Your task to perform on an android device: check the backup settings in the google photos Image 0: 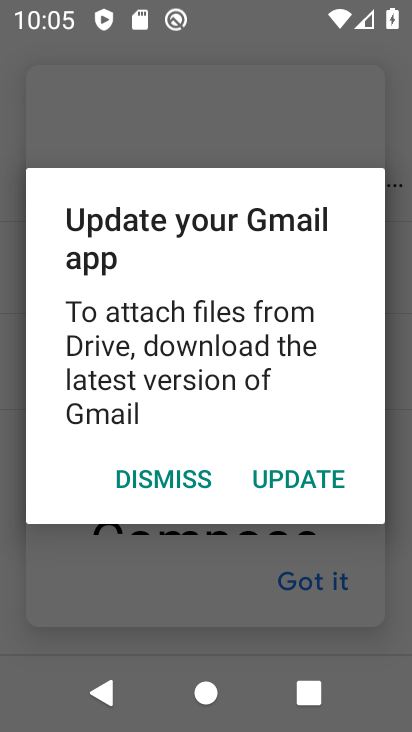
Step 0: press home button
Your task to perform on an android device: check the backup settings in the google photos Image 1: 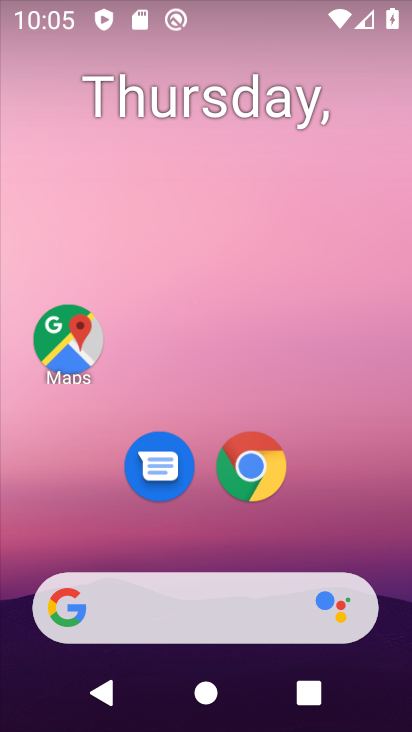
Step 1: drag from (174, 609) to (326, 91)
Your task to perform on an android device: check the backup settings in the google photos Image 2: 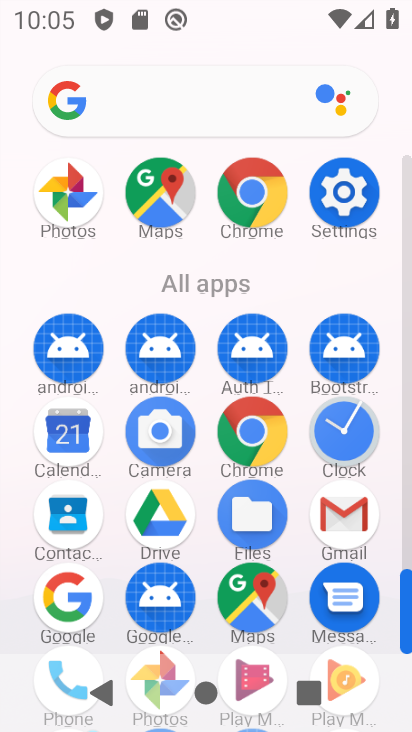
Step 2: click (66, 202)
Your task to perform on an android device: check the backup settings in the google photos Image 3: 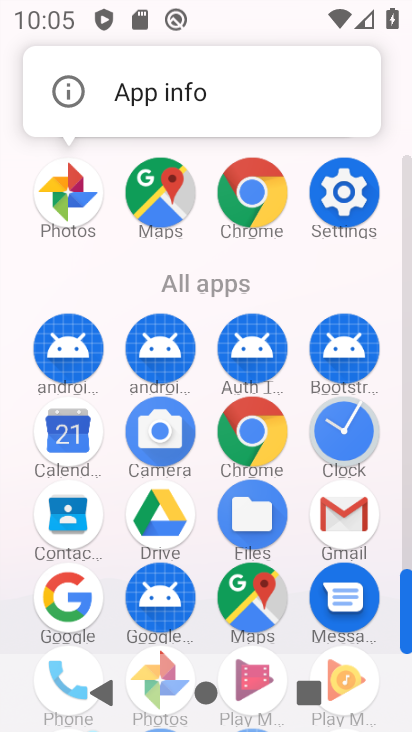
Step 3: click (70, 204)
Your task to perform on an android device: check the backup settings in the google photos Image 4: 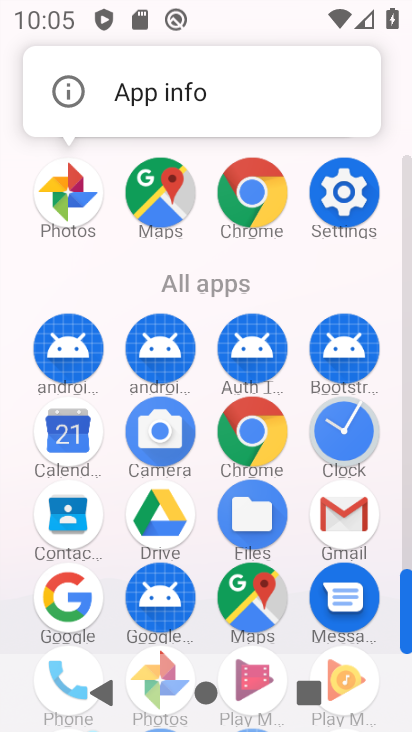
Step 4: click (70, 203)
Your task to perform on an android device: check the backup settings in the google photos Image 5: 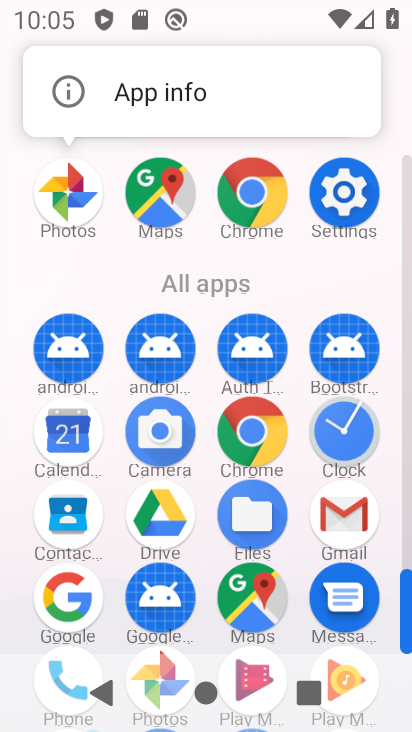
Step 5: click (73, 197)
Your task to perform on an android device: check the backup settings in the google photos Image 6: 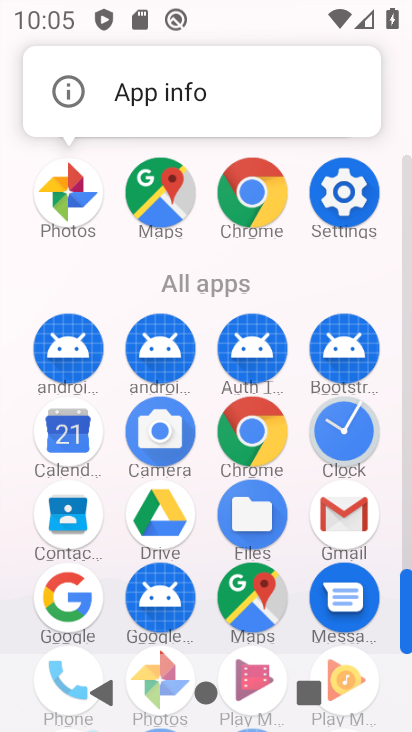
Step 6: click (71, 197)
Your task to perform on an android device: check the backup settings in the google photos Image 7: 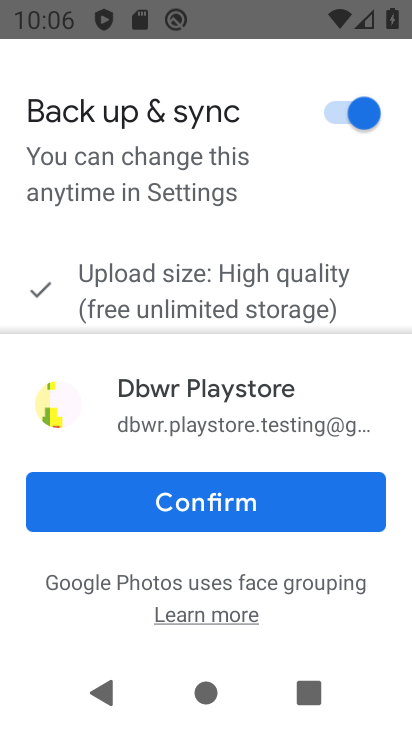
Step 7: click (206, 495)
Your task to perform on an android device: check the backup settings in the google photos Image 8: 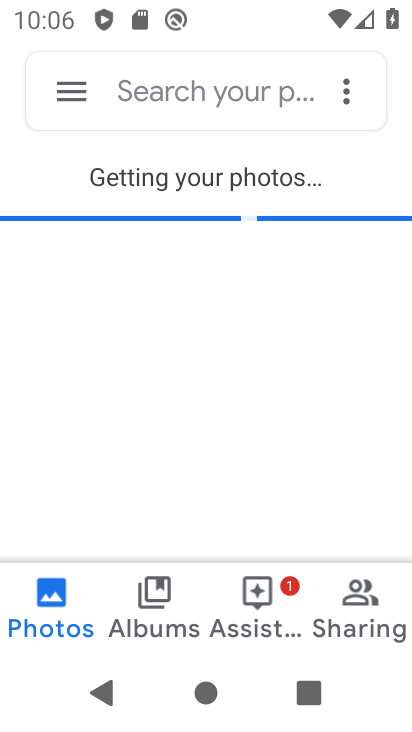
Step 8: click (72, 89)
Your task to perform on an android device: check the backup settings in the google photos Image 9: 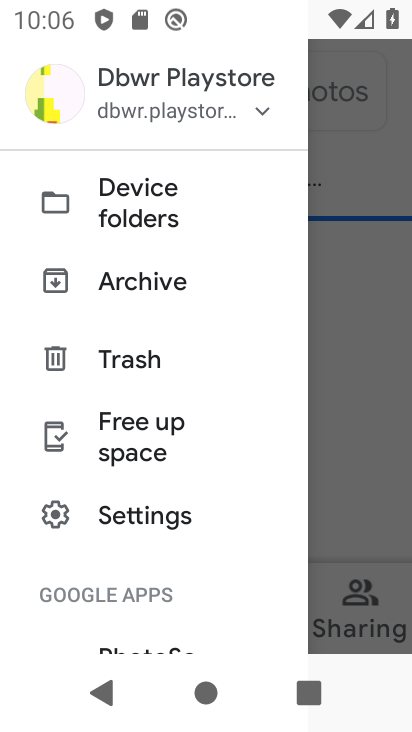
Step 9: click (152, 511)
Your task to perform on an android device: check the backup settings in the google photos Image 10: 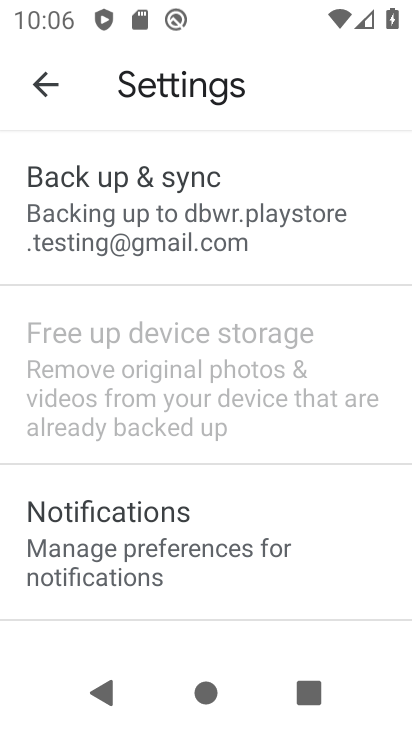
Step 10: click (176, 217)
Your task to perform on an android device: check the backup settings in the google photos Image 11: 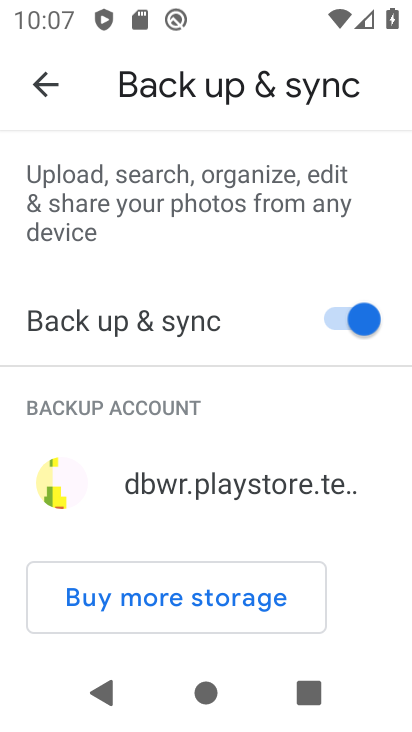
Step 11: task complete